Your task to perform on an android device: Open settings Image 0: 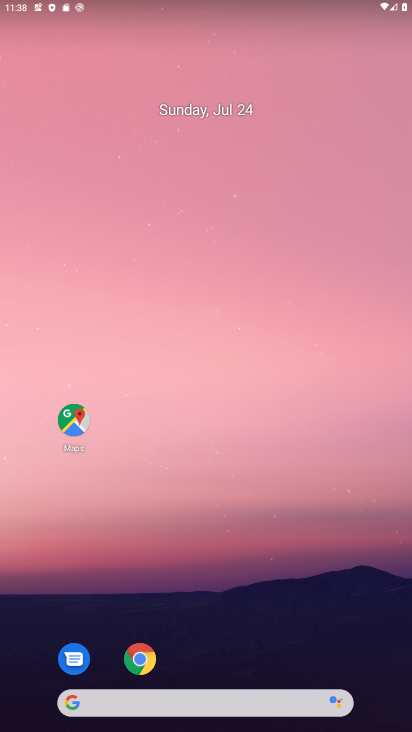
Step 0: drag from (169, 498) to (243, 176)
Your task to perform on an android device: Open settings Image 1: 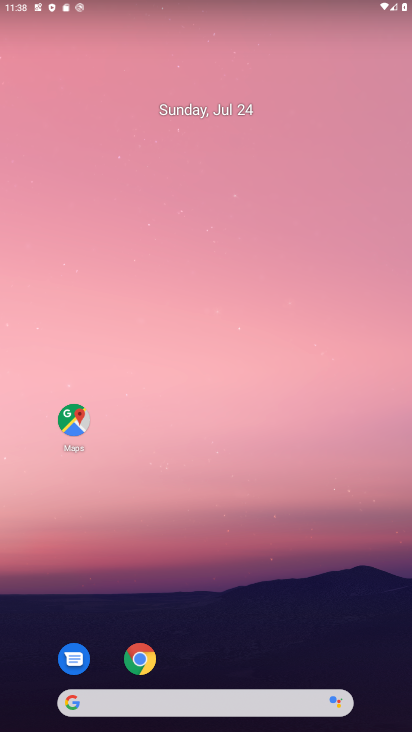
Step 1: drag from (29, 701) to (290, 168)
Your task to perform on an android device: Open settings Image 2: 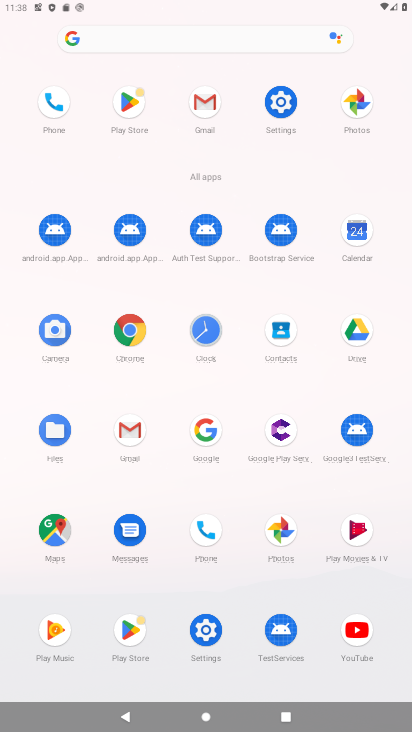
Step 2: drag from (209, 670) to (177, 625)
Your task to perform on an android device: Open settings Image 3: 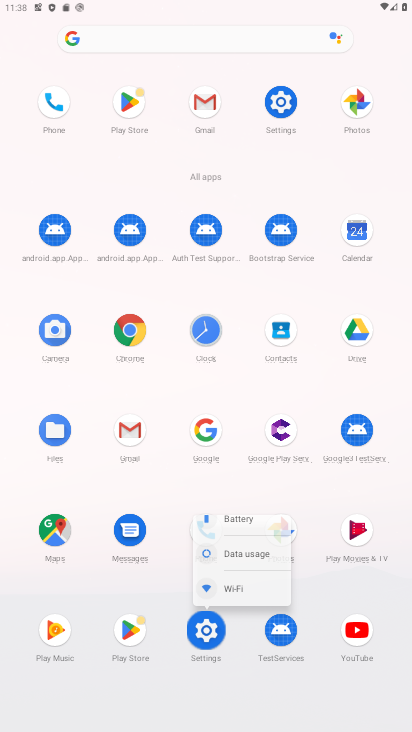
Step 3: click (210, 629)
Your task to perform on an android device: Open settings Image 4: 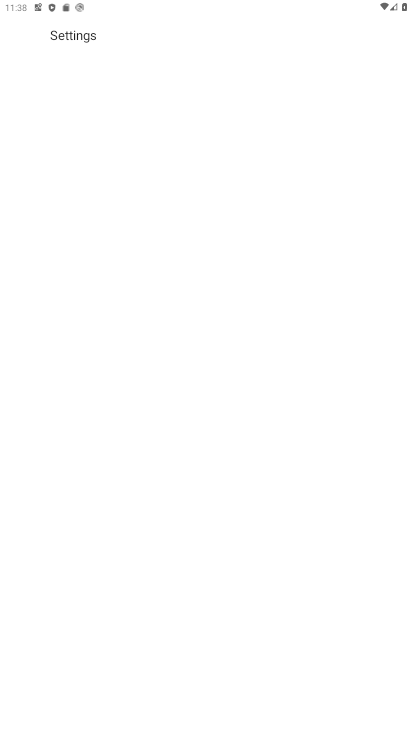
Step 4: click (203, 628)
Your task to perform on an android device: Open settings Image 5: 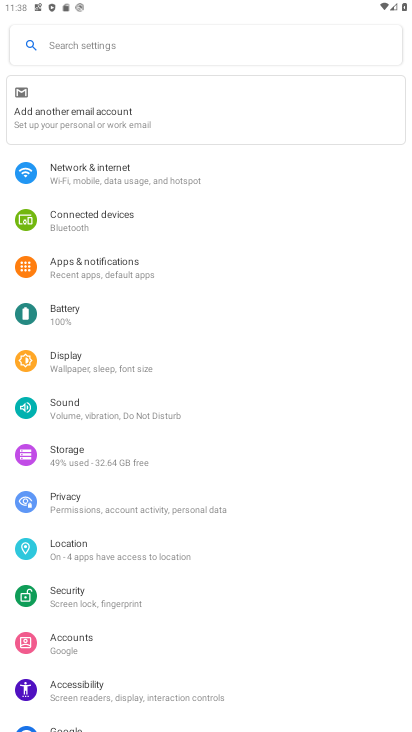
Step 5: task complete